Your task to perform on an android device: Open Maps and search for coffee Image 0: 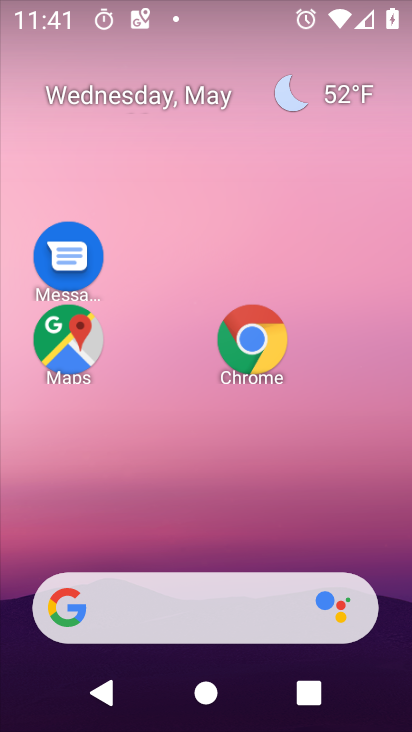
Step 0: click (53, 359)
Your task to perform on an android device: Open Maps and search for coffee Image 1: 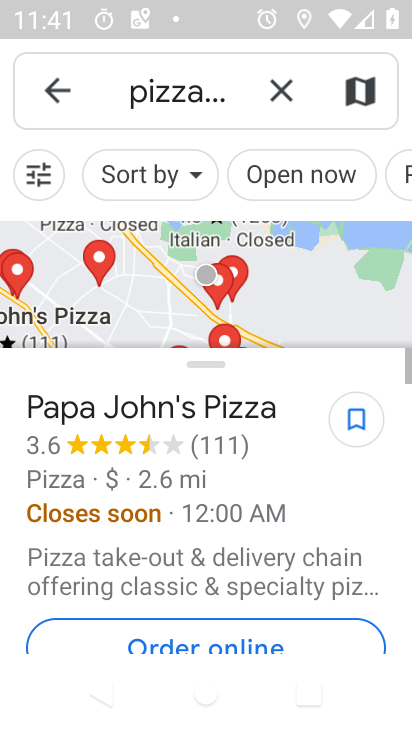
Step 1: click (284, 96)
Your task to perform on an android device: Open Maps and search for coffee Image 2: 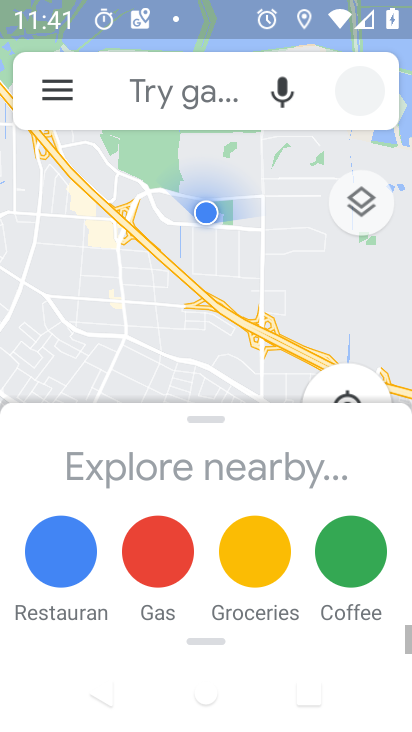
Step 2: click (169, 93)
Your task to perform on an android device: Open Maps and search for coffee Image 3: 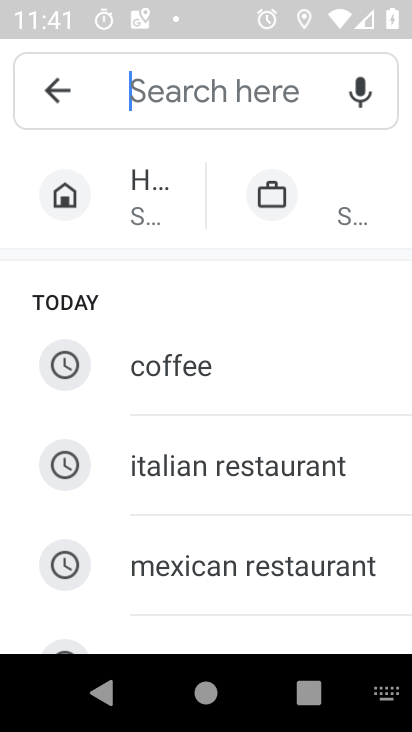
Step 3: click (175, 378)
Your task to perform on an android device: Open Maps and search for coffee Image 4: 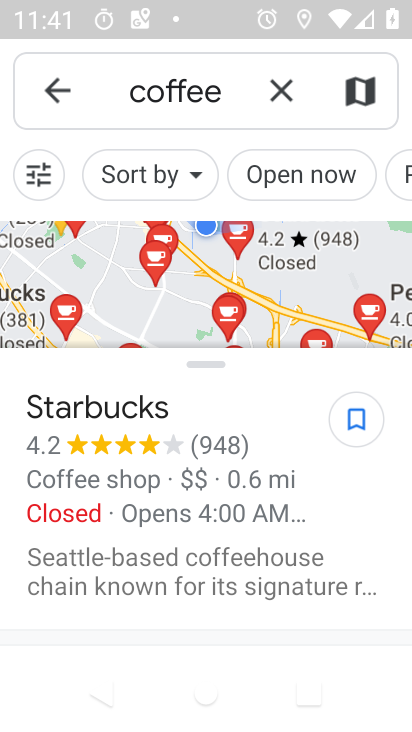
Step 4: task complete